Your task to perform on an android device: uninstall "Booking.com: Hotels and more" Image 0: 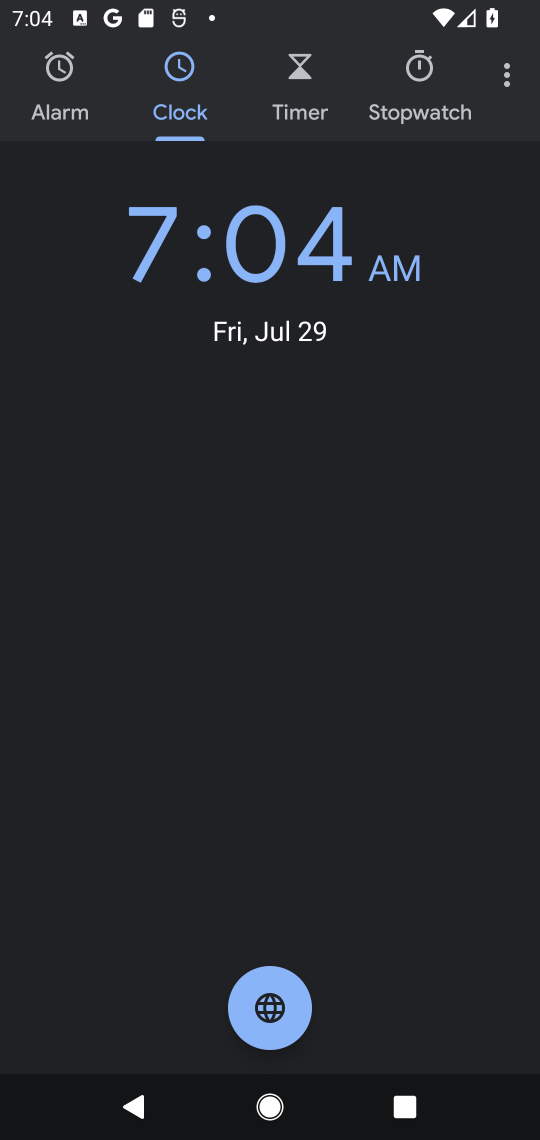
Step 0: press home button
Your task to perform on an android device: uninstall "Booking.com: Hotels and more" Image 1: 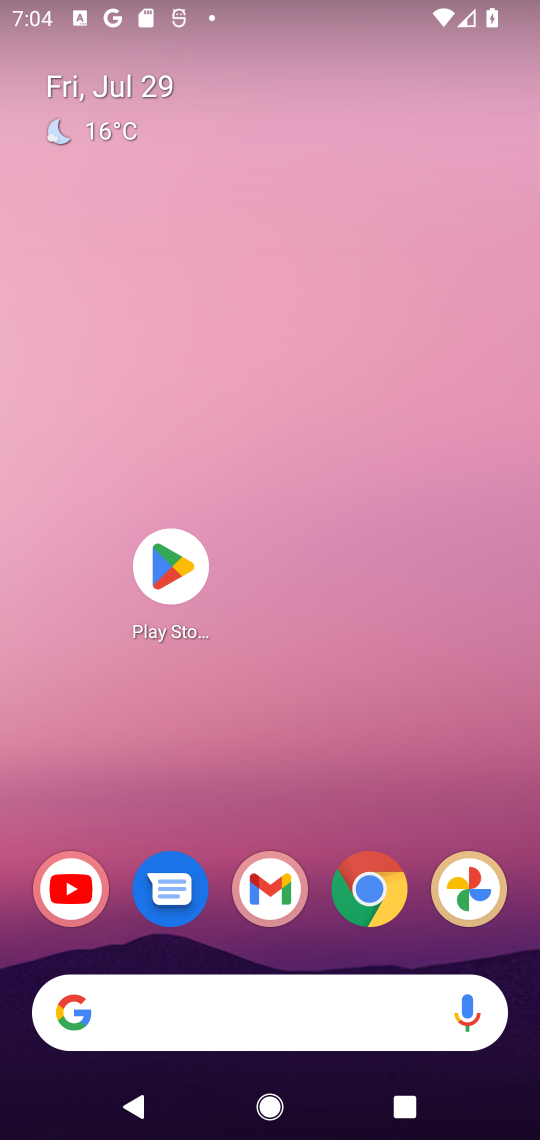
Step 1: click (171, 564)
Your task to perform on an android device: uninstall "Booking.com: Hotels and more" Image 2: 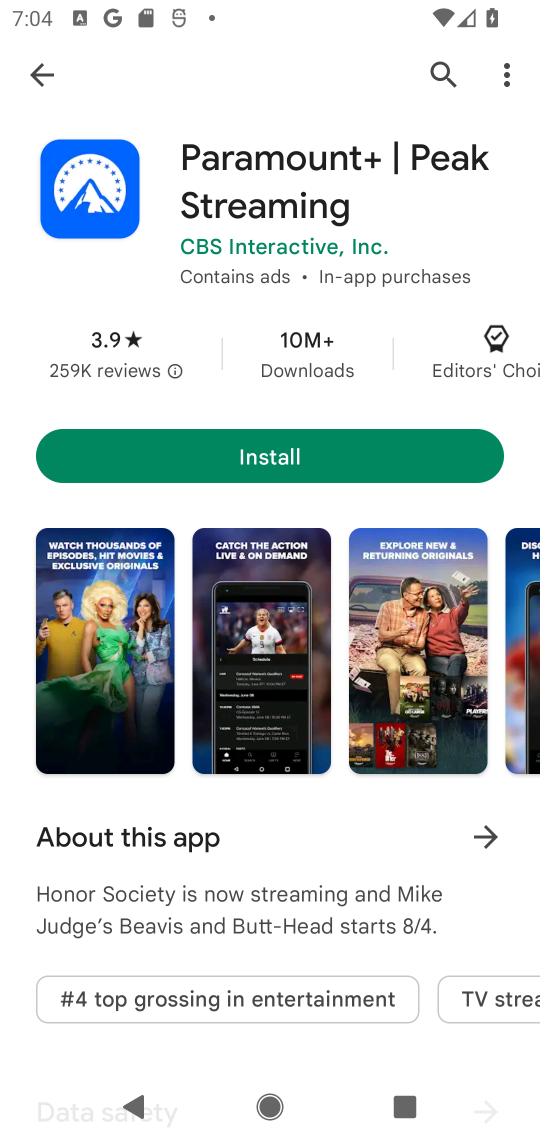
Step 2: click (441, 66)
Your task to perform on an android device: uninstall "Booking.com: Hotels and more" Image 3: 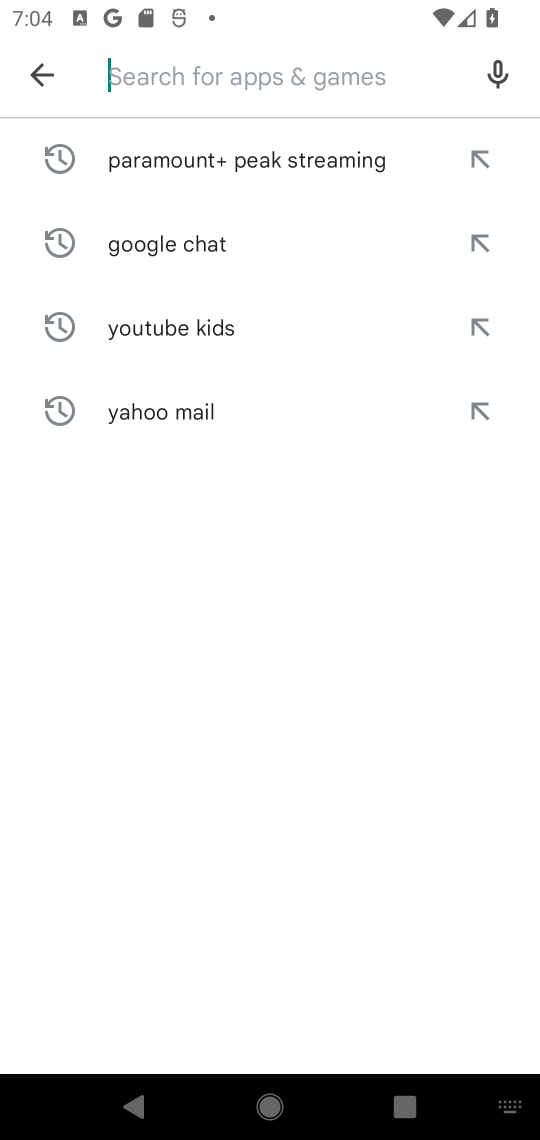
Step 3: type "Booking.com: Hotels and more"
Your task to perform on an android device: uninstall "Booking.com: Hotels and more" Image 4: 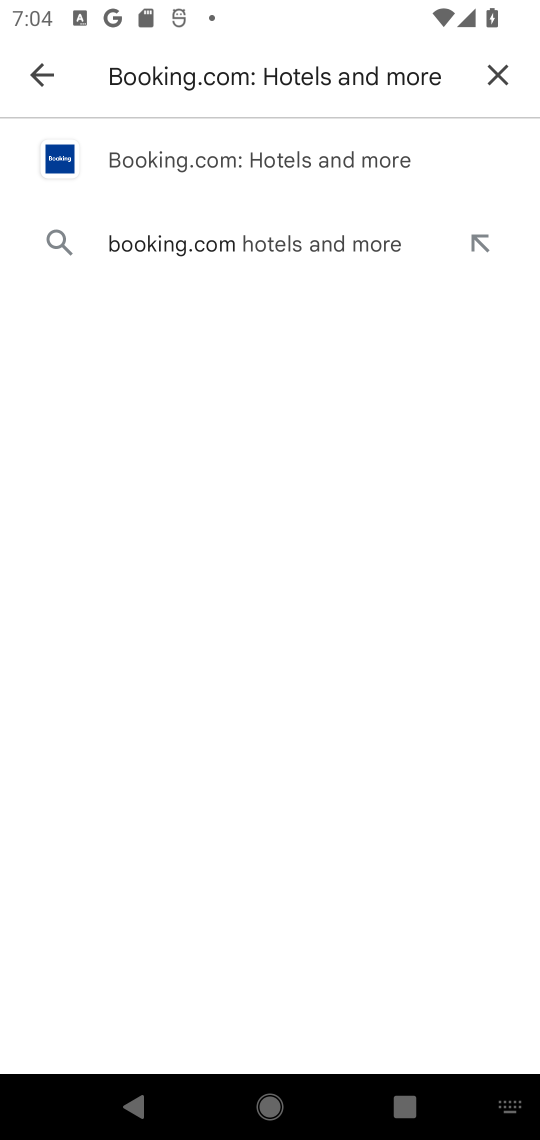
Step 4: click (341, 158)
Your task to perform on an android device: uninstall "Booking.com: Hotels and more" Image 5: 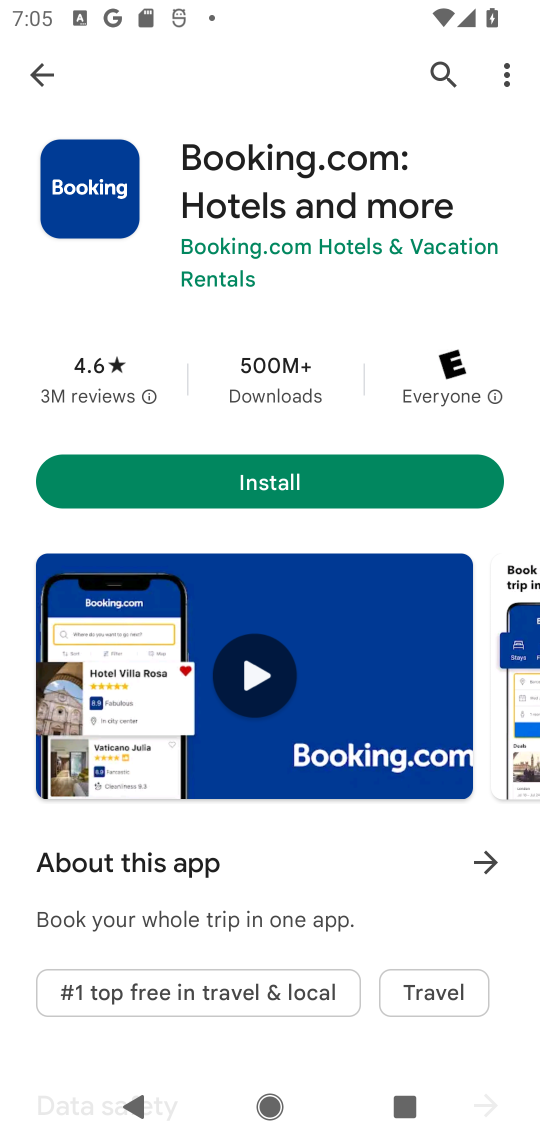
Step 5: task complete